Your task to perform on an android device: toggle show notifications on the lock screen Image 0: 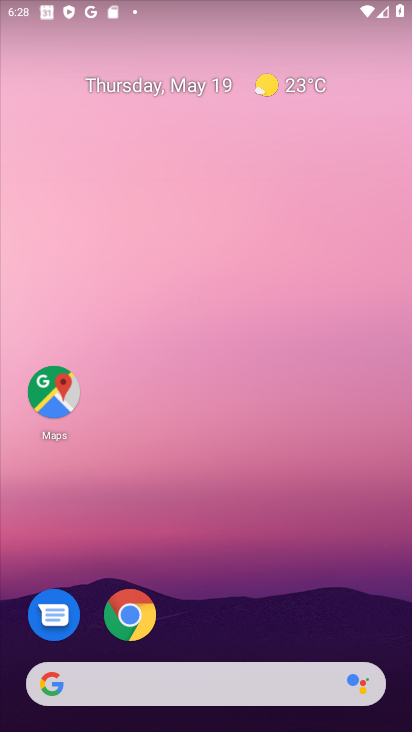
Step 0: drag from (301, 607) to (289, 41)
Your task to perform on an android device: toggle show notifications on the lock screen Image 1: 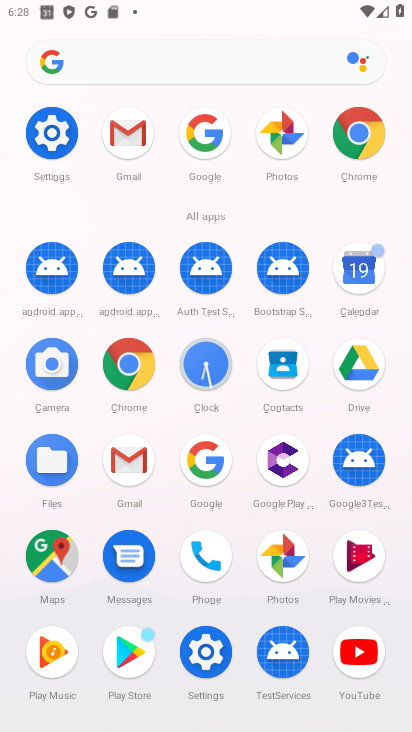
Step 1: click (67, 143)
Your task to perform on an android device: toggle show notifications on the lock screen Image 2: 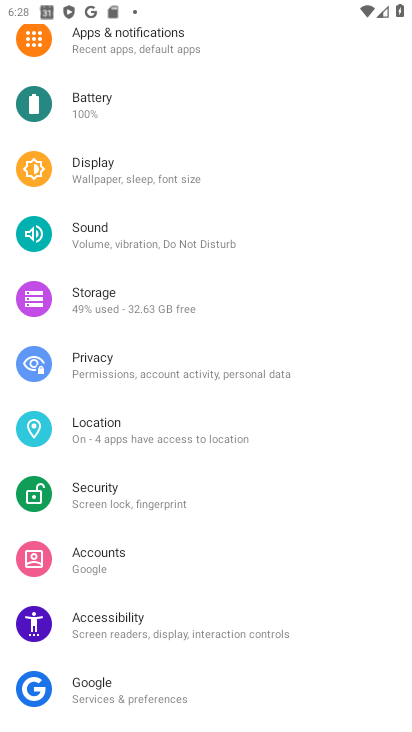
Step 2: click (201, 53)
Your task to perform on an android device: toggle show notifications on the lock screen Image 3: 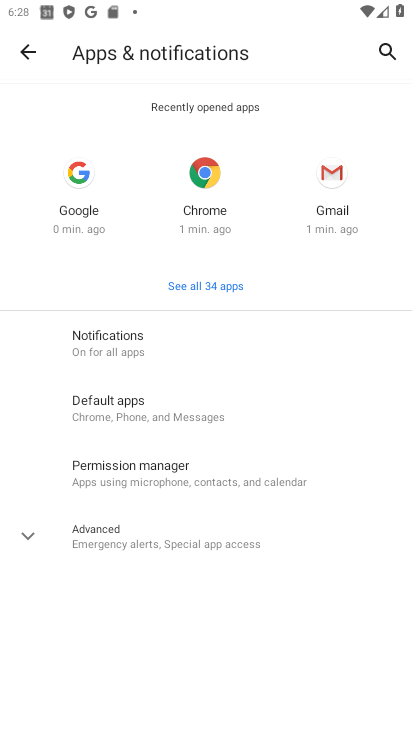
Step 3: click (163, 349)
Your task to perform on an android device: toggle show notifications on the lock screen Image 4: 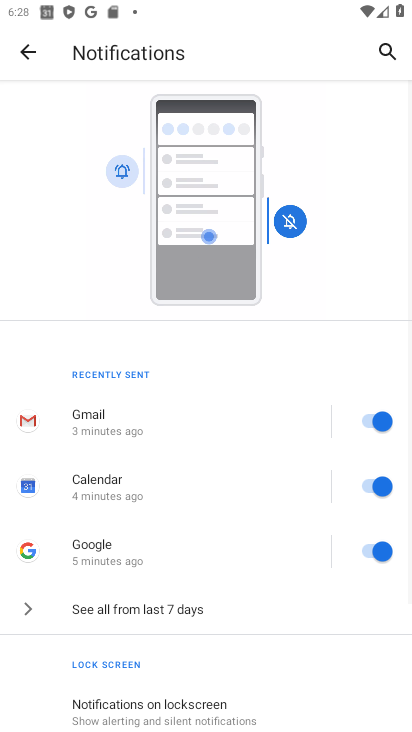
Step 4: drag from (187, 662) to (238, 320)
Your task to perform on an android device: toggle show notifications on the lock screen Image 5: 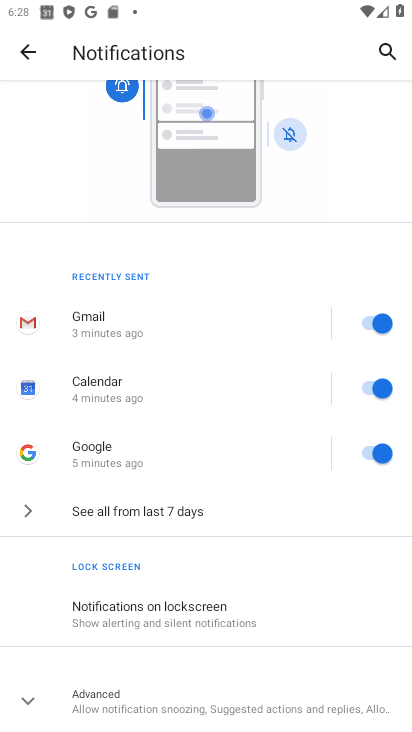
Step 5: click (234, 625)
Your task to perform on an android device: toggle show notifications on the lock screen Image 6: 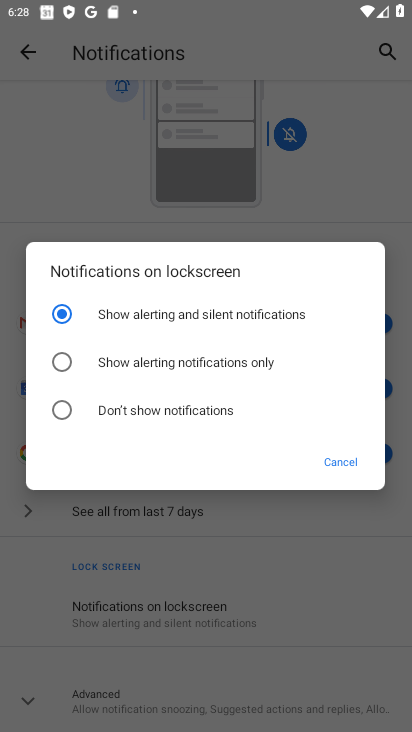
Step 6: click (83, 412)
Your task to perform on an android device: toggle show notifications on the lock screen Image 7: 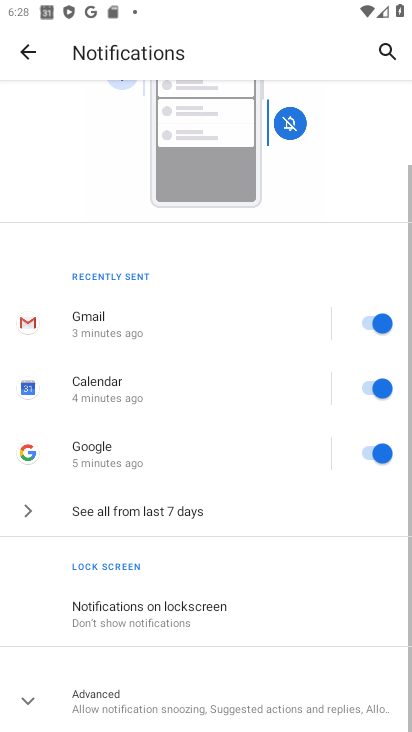
Step 7: task complete